Your task to perform on an android device: Open Google Maps Image 0: 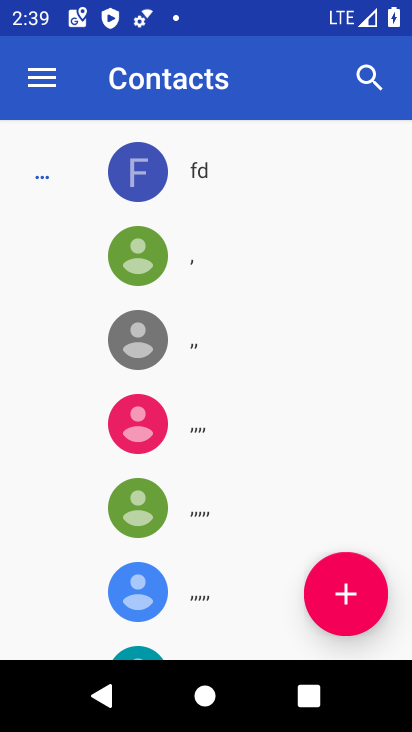
Step 0: press home button
Your task to perform on an android device: Open Google Maps Image 1: 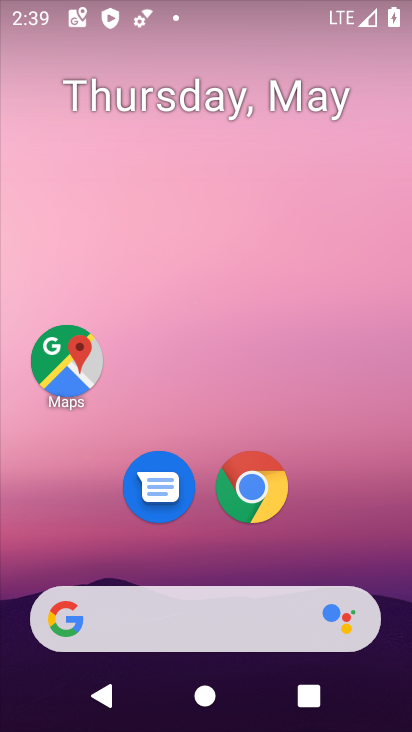
Step 1: drag from (240, 576) to (296, 90)
Your task to perform on an android device: Open Google Maps Image 2: 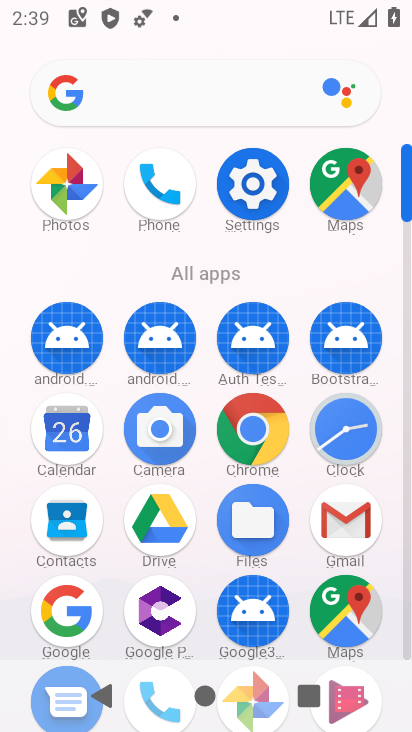
Step 2: click (364, 621)
Your task to perform on an android device: Open Google Maps Image 3: 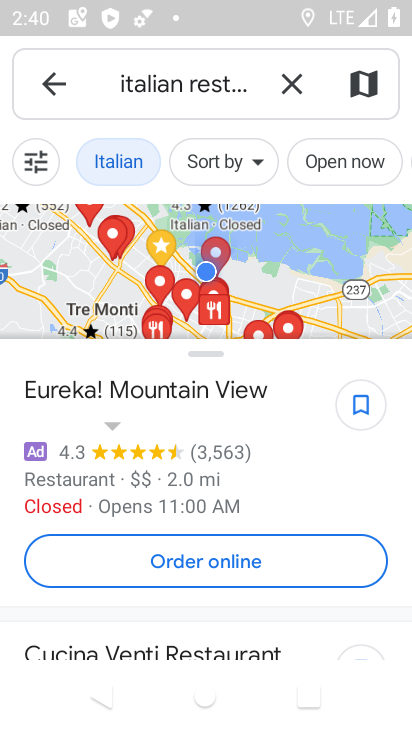
Step 3: press home button
Your task to perform on an android device: Open Google Maps Image 4: 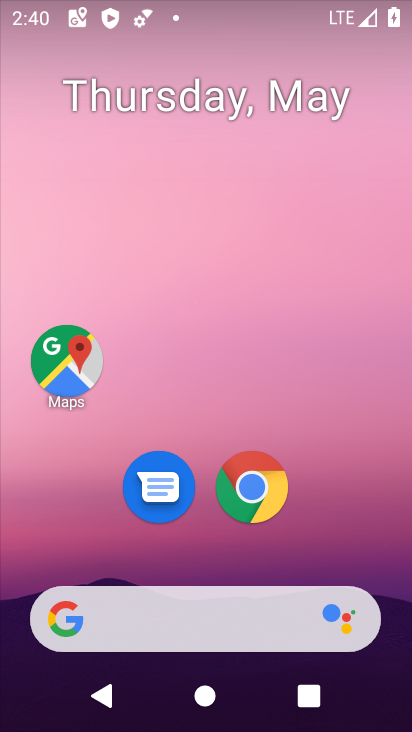
Step 4: drag from (186, 584) to (257, 177)
Your task to perform on an android device: Open Google Maps Image 5: 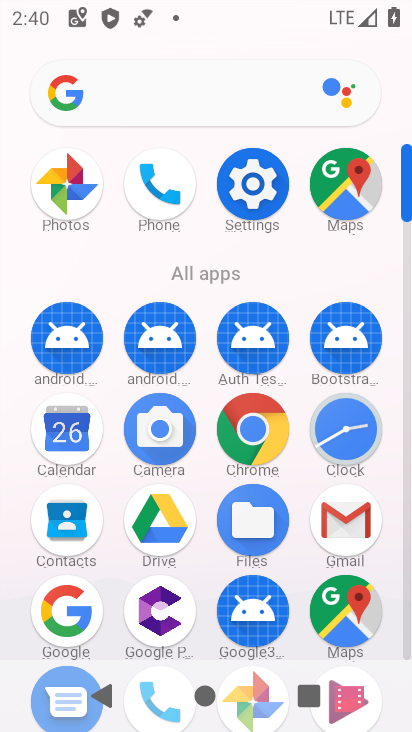
Step 5: drag from (201, 521) to (256, 237)
Your task to perform on an android device: Open Google Maps Image 6: 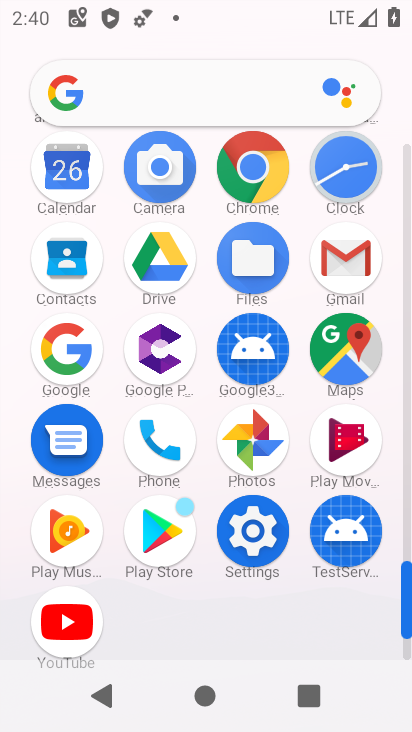
Step 6: click (358, 359)
Your task to perform on an android device: Open Google Maps Image 7: 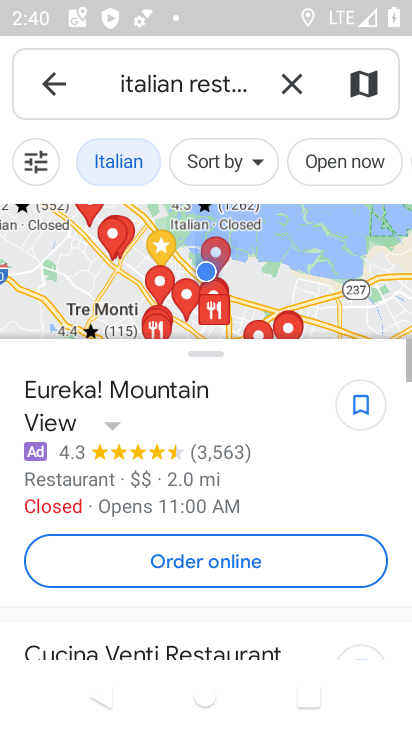
Step 7: task complete